Your task to perform on an android device: toggle translation in the chrome app Image 0: 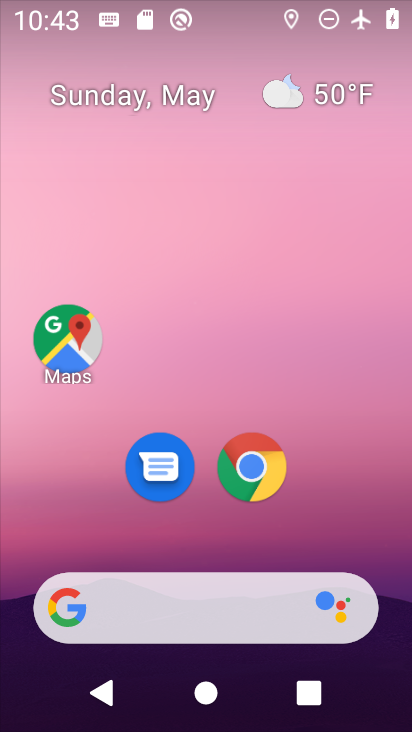
Step 0: click (258, 478)
Your task to perform on an android device: toggle translation in the chrome app Image 1: 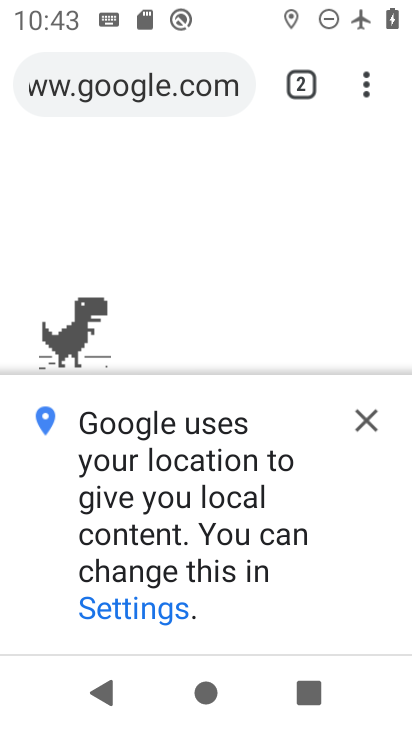
Step 1: click (362, 91)
Your task to perform on an android device: toggle translation in the chrome app Image 2: 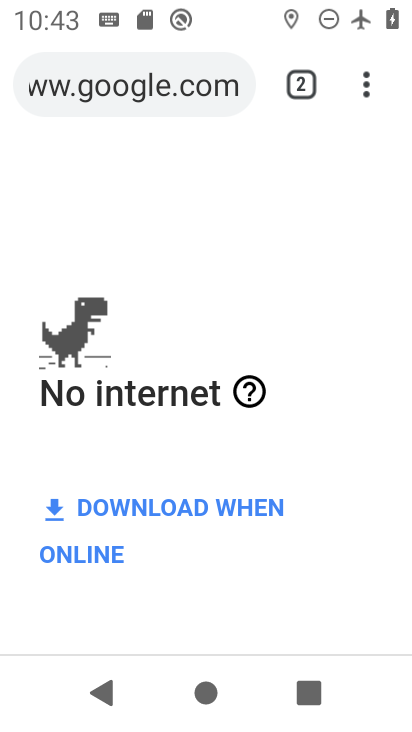
Step 2: drag from (363, 93) to (168, 500)
Your task to perform on an android device: toggle translation in the chrome app Image 3: 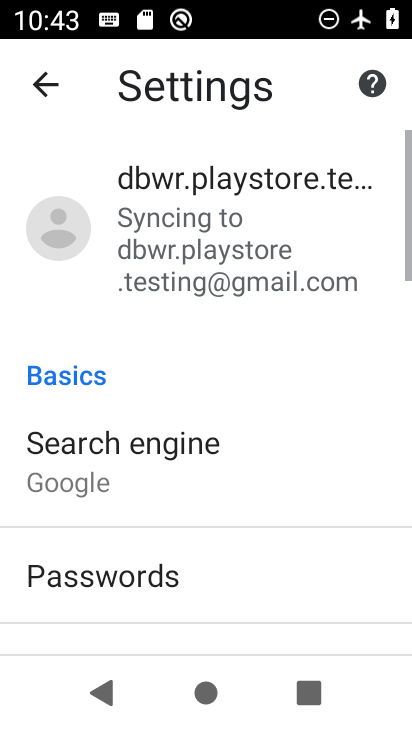
Step 3: drag from (192, 556) to (180, 204)
Your task to perform on an android device: toggle translation in the chrome app Image 4: 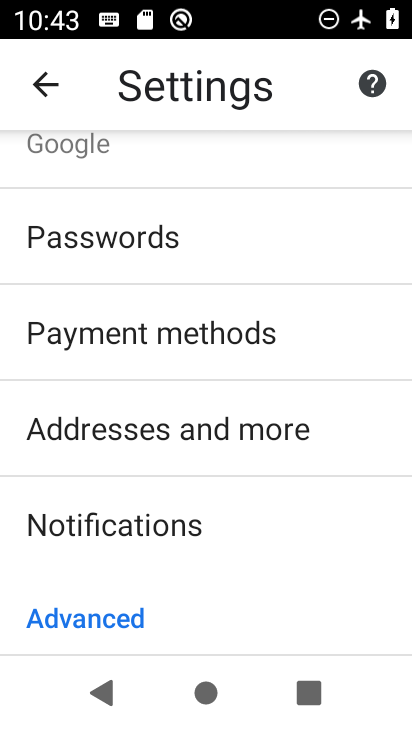
Step 4: drag from (190, 545) to (187, 351)
Your task to perform on an android device: toggle translation in the chrome app Image 5: 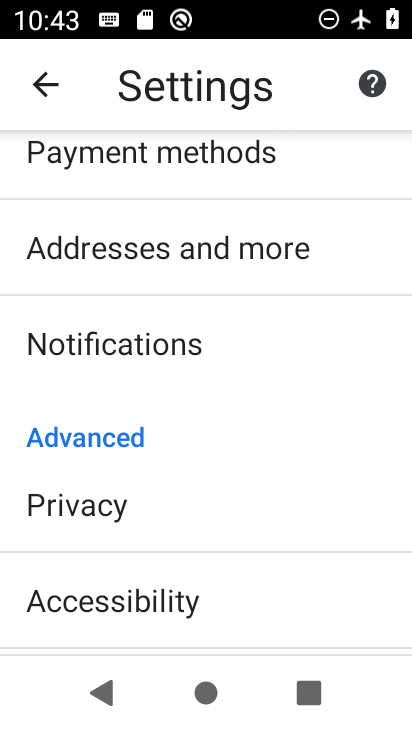
Step 5: drag from (198, 615) to (172, 352)
Your task to perform on an android device: toggle translation in the chrome app Image 6: 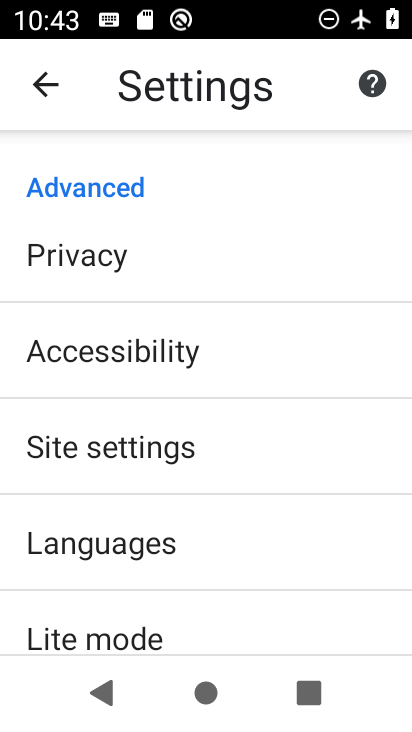
Step 6: click (185, 511)
Your task to perform on an android device: toggle translation in the chrome app Image 7: 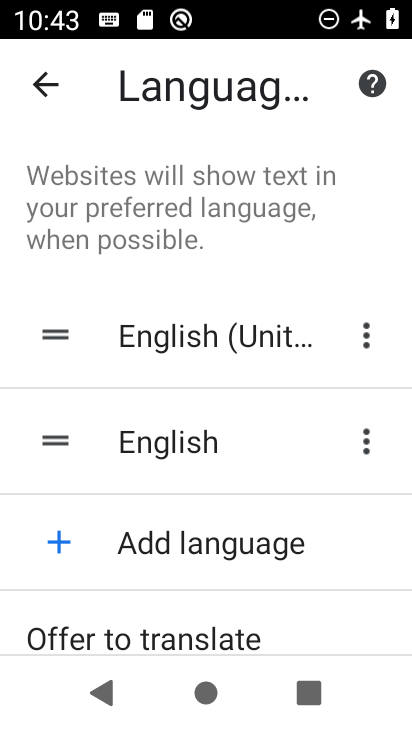
Step 7: drag from (195, 589) to (182, 286)
Your task to perform on an android device: toggle translation in the chrome app Image 8: 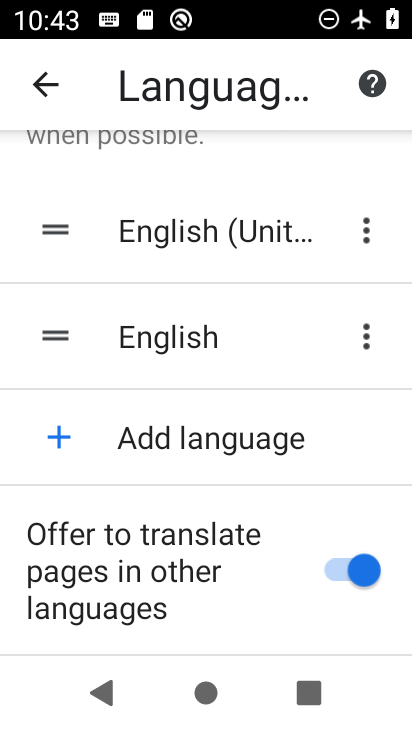
Step 8: click (326, 569)
Your task to perform on an android device: toggle translation in the chrome app Image 9: 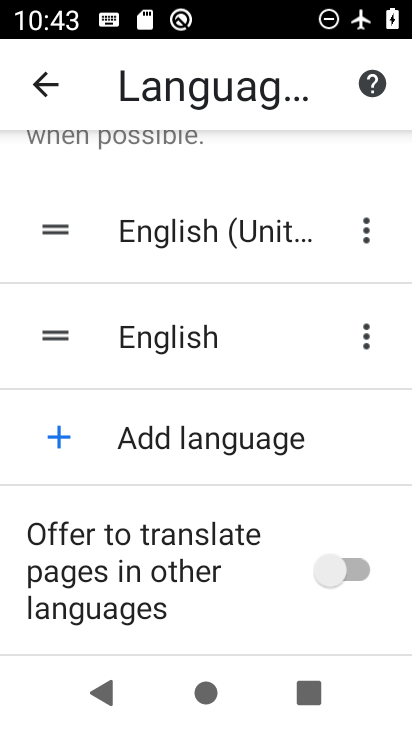
Step 9: task complete